Your task to perform on an android device: View the shopping cart on ebay. Add "rayovac triple a" to the cart on ebay Image 0: 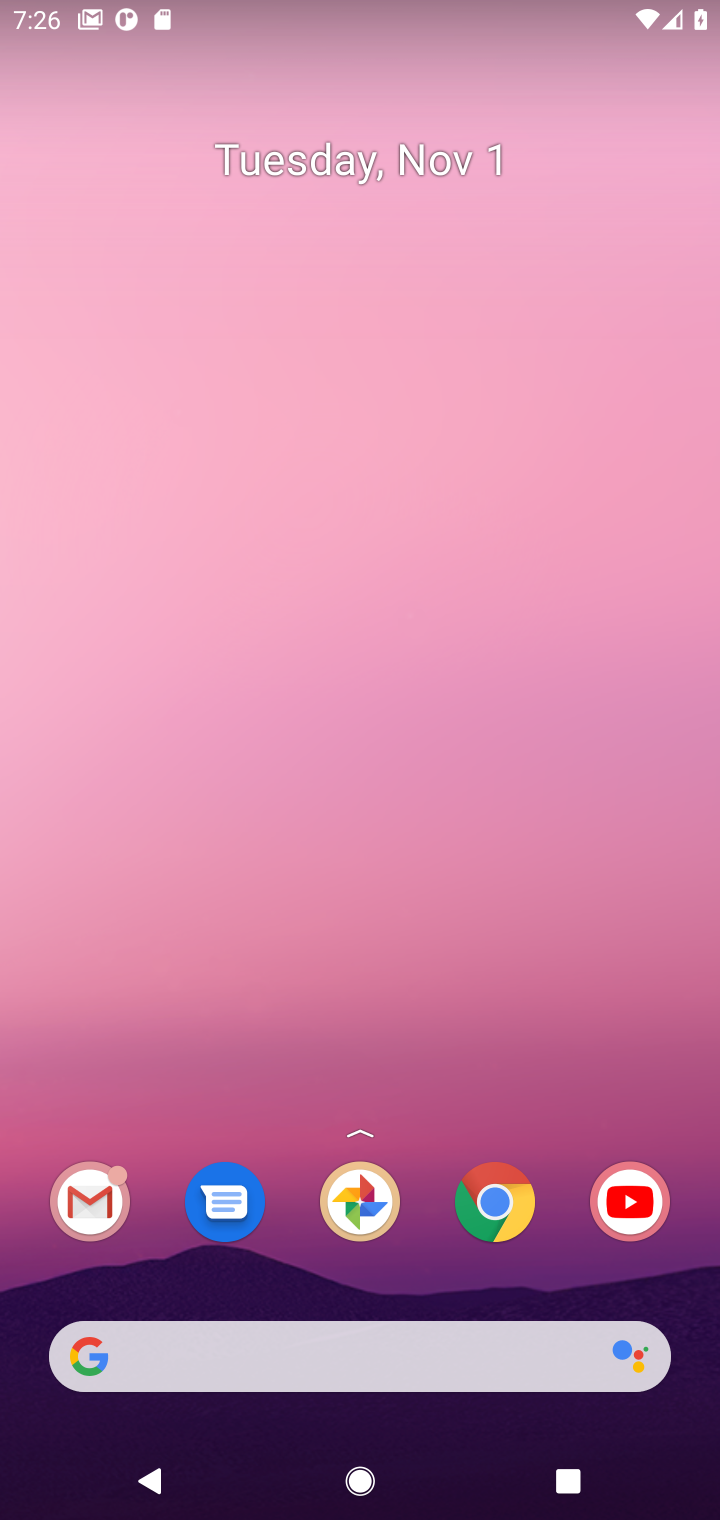
Step 0: drag from (446, 1436) to (466, 33)
Your task to perform on an android device: View the shopping cart on ebay. Add "rayovac triple a" to the cart on ebay Image 1: 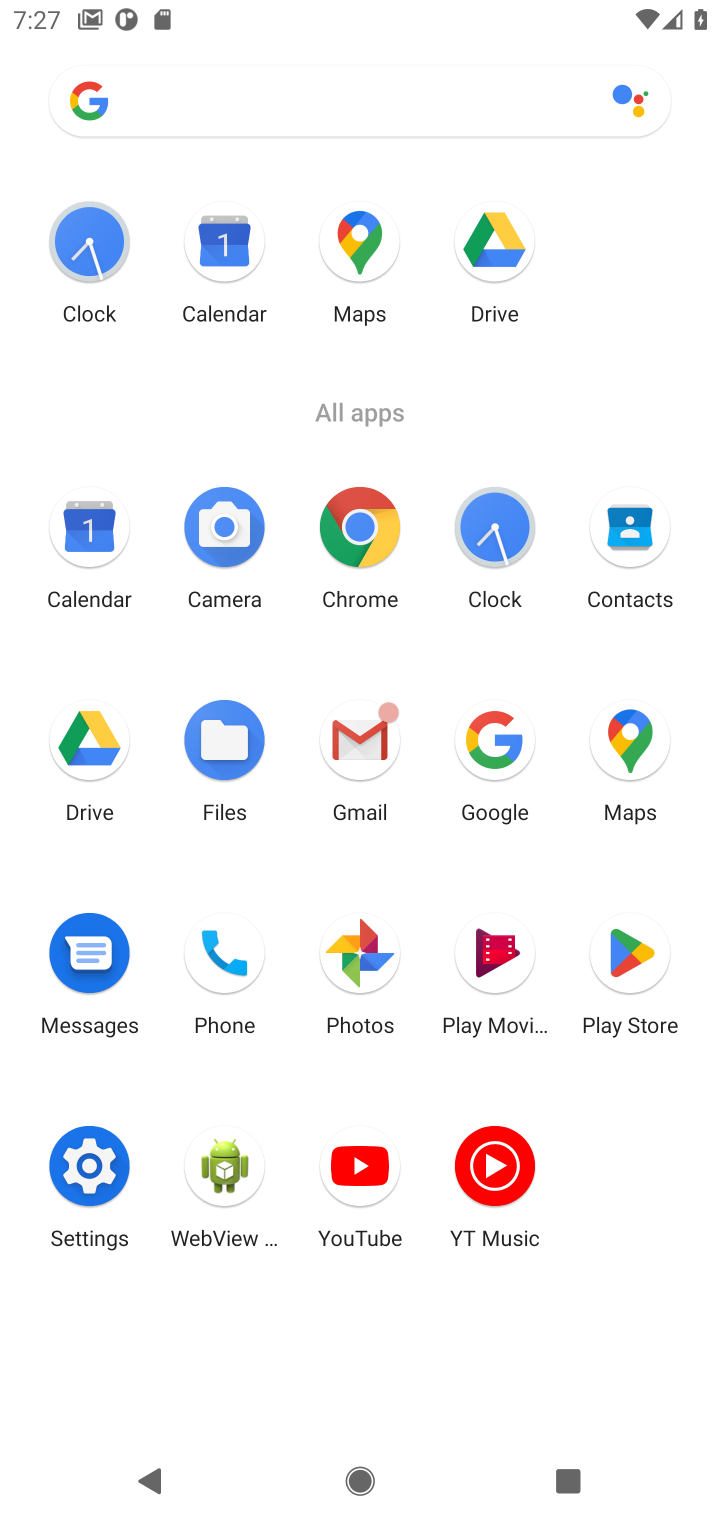
Step 1: drag from (288, 1351) to (389, 137)
Your task to perform on an android device: View the shopping cart on ebay. Add "rayovac triple a" to the cart on ebay Image 2: 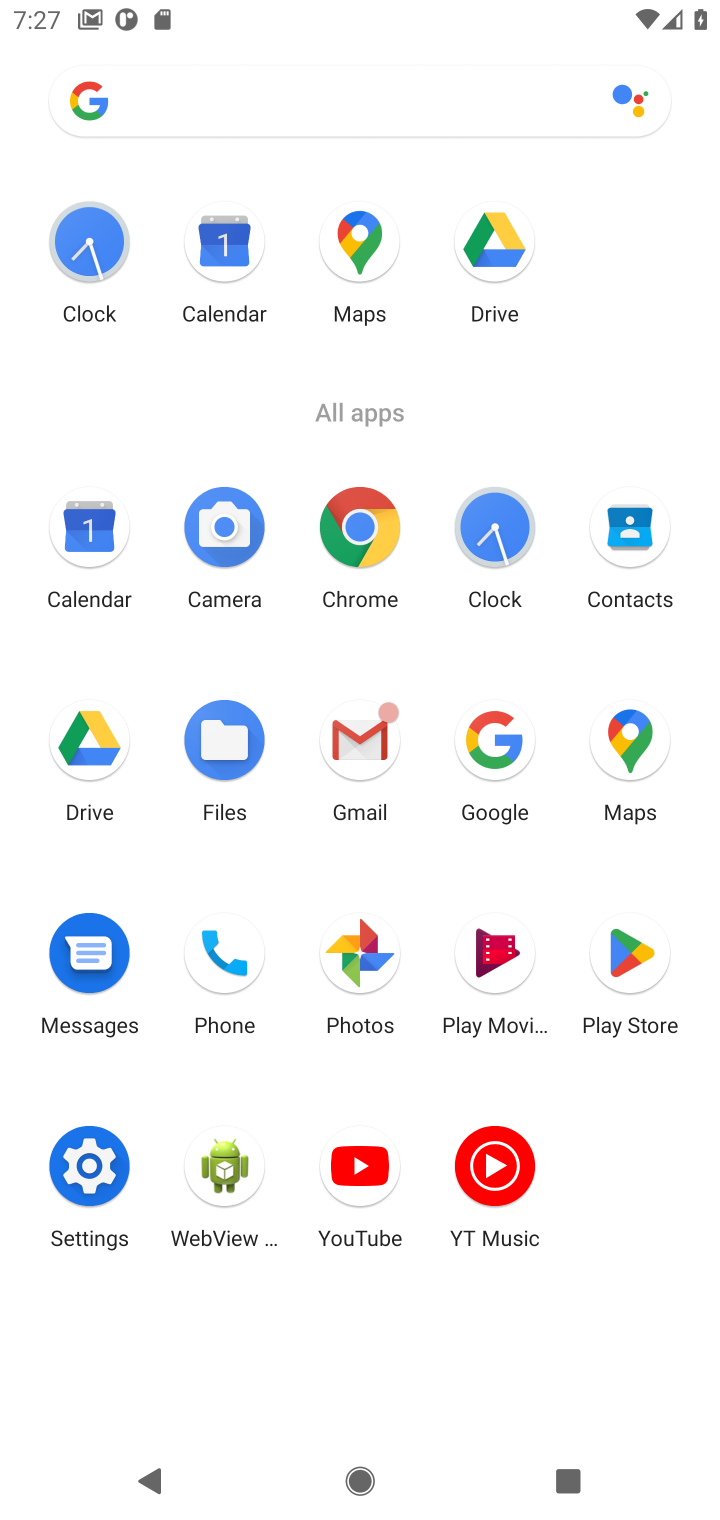
Step 2: click (359, 524)
Your task to perform on an android device: View the shopping cart on ebay. Add "rayovac triple a" to the cart on ebay Image 3: 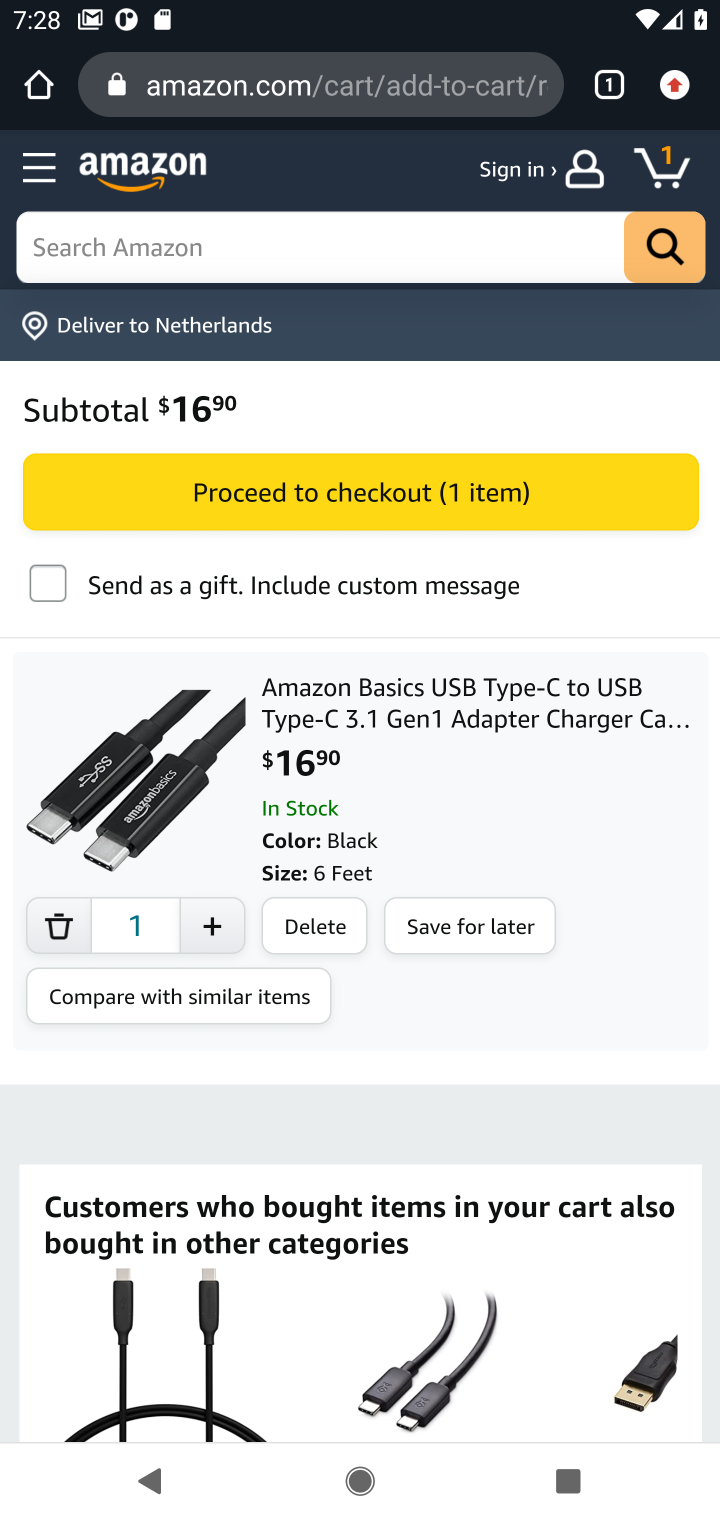
Step 3: click (320, 77)
Your task to perform on an android device: View the shopping cart on ebay. Add "rayovac triple a" to the cart on ebay Image 4: 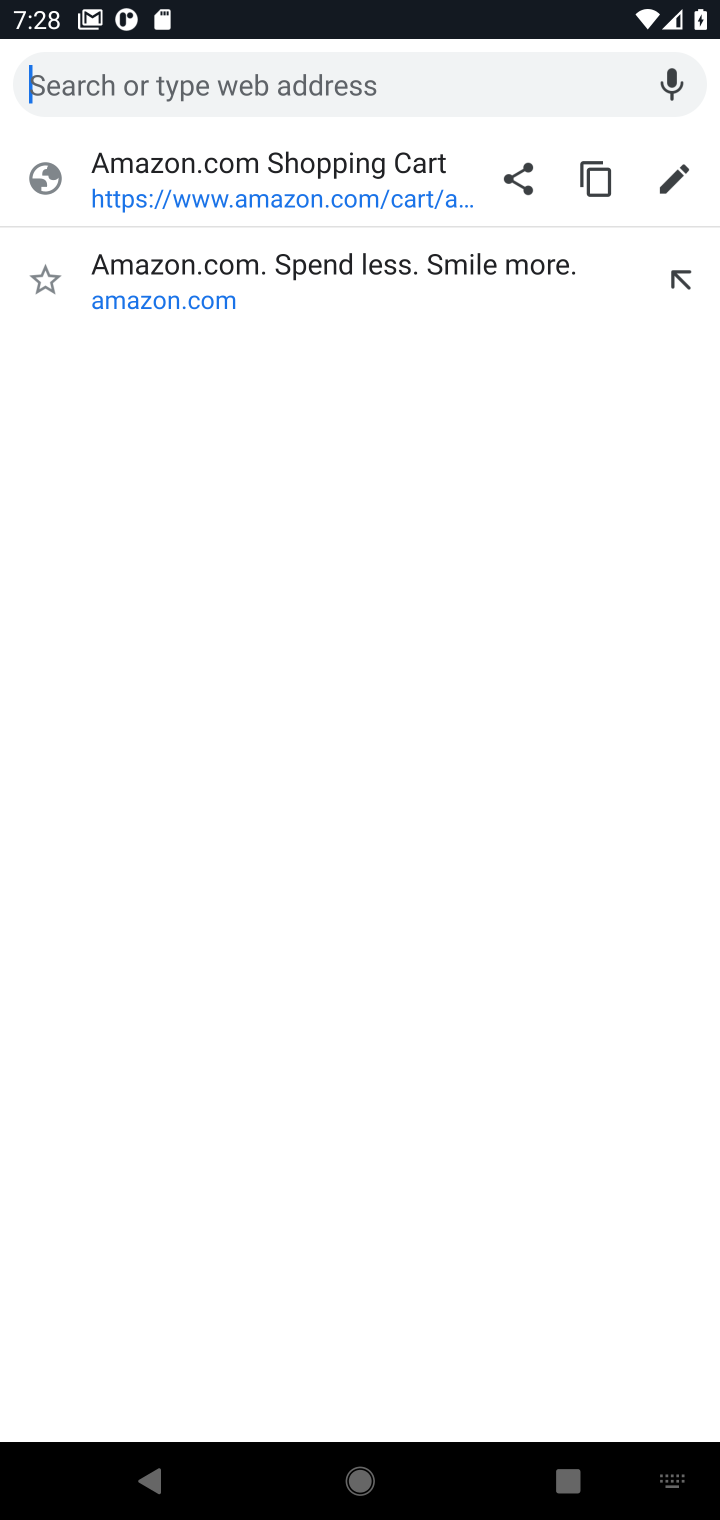
Step 4: type "ebay"
Your task to perform on an android device: View the shopping cart on ebay. Add "rayovac triple a" to the cart on ebay Image 5: 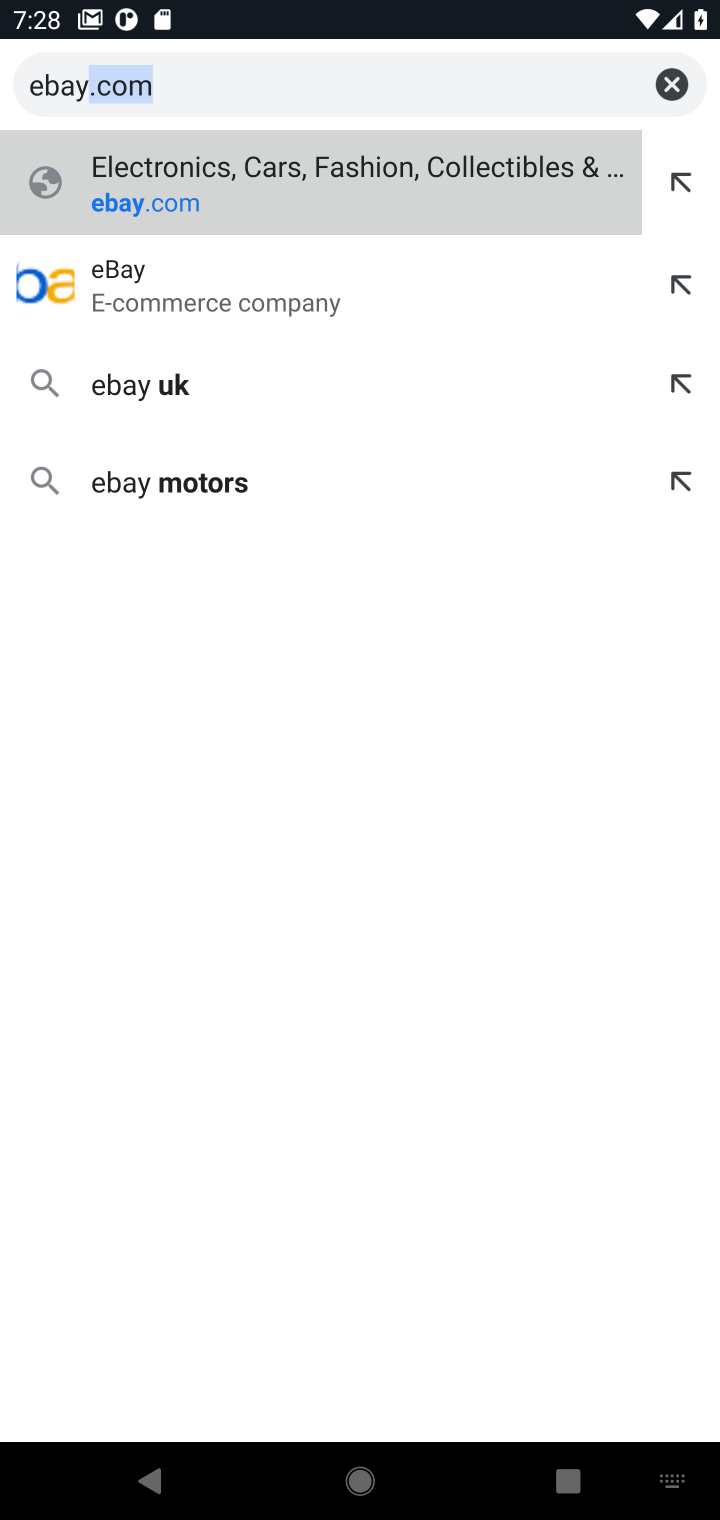
Step 5: click (127, 202)
Your task to perform on an android device: View the shopping cart on ebay. Add "rayovac triple a" to the cart on ebay Image 6: 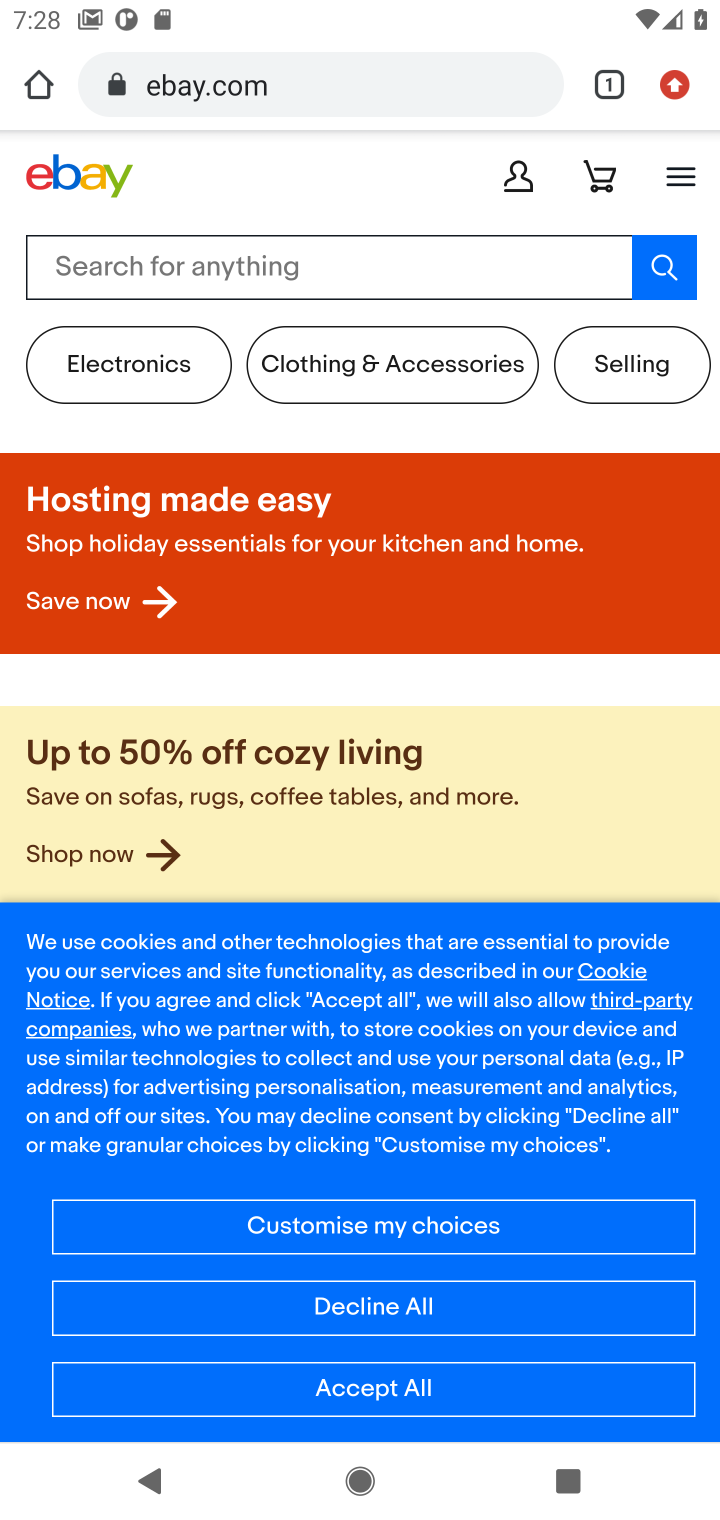
Step 6: click (275, 258)
Your task to perform on an android device: View the shopping cart on ebay. Add "rayovac triple a" to the cart on ebay Image 7: 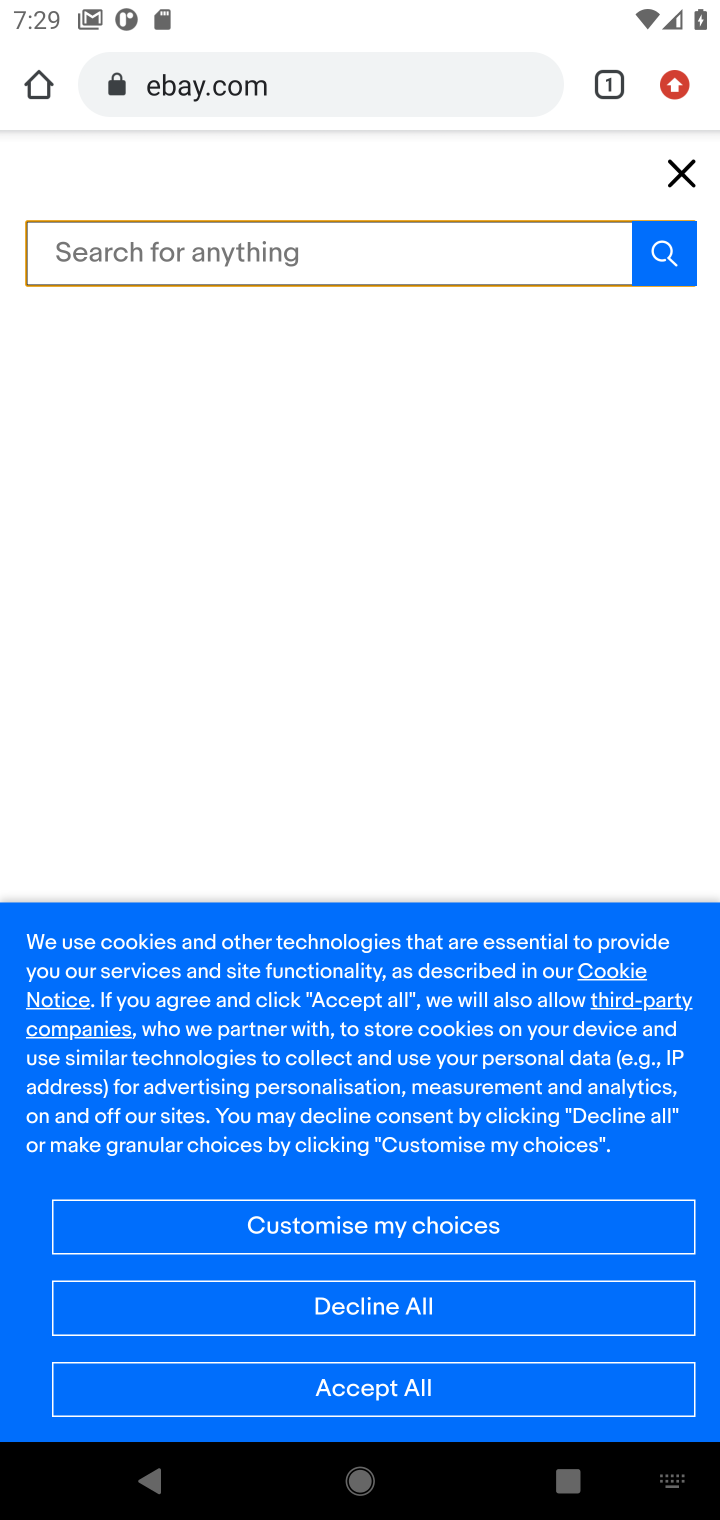
Step 7: type "rayovac triple a"
Your task to perform on an android device: View the shopping cart on ebay. Add "rayovac triple a" to the cart on ebay Image 8: 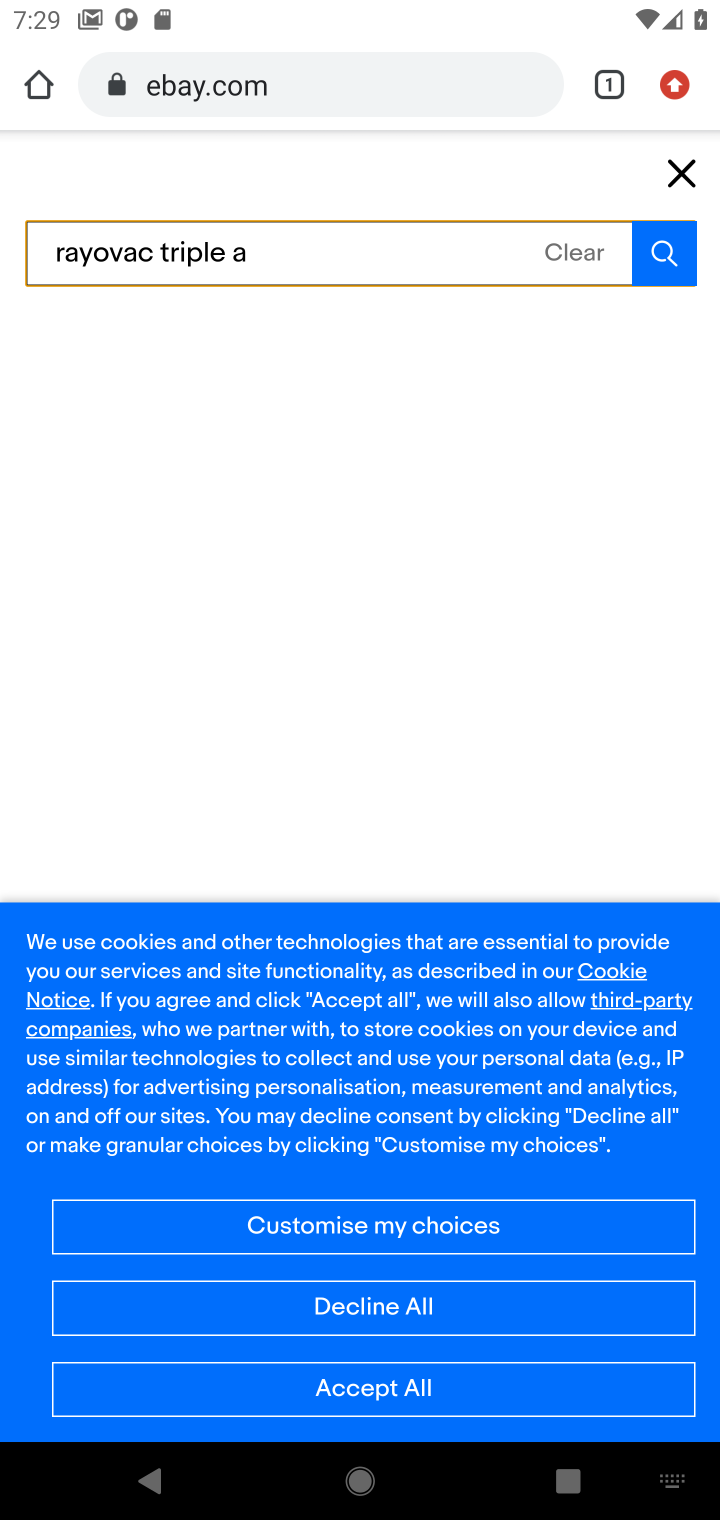
Step 8: click (655, 245)
Your task to perform on an android device: View the shopping cart on ebay. Add "rayovac triple a" to the cart on ebay Image 9: 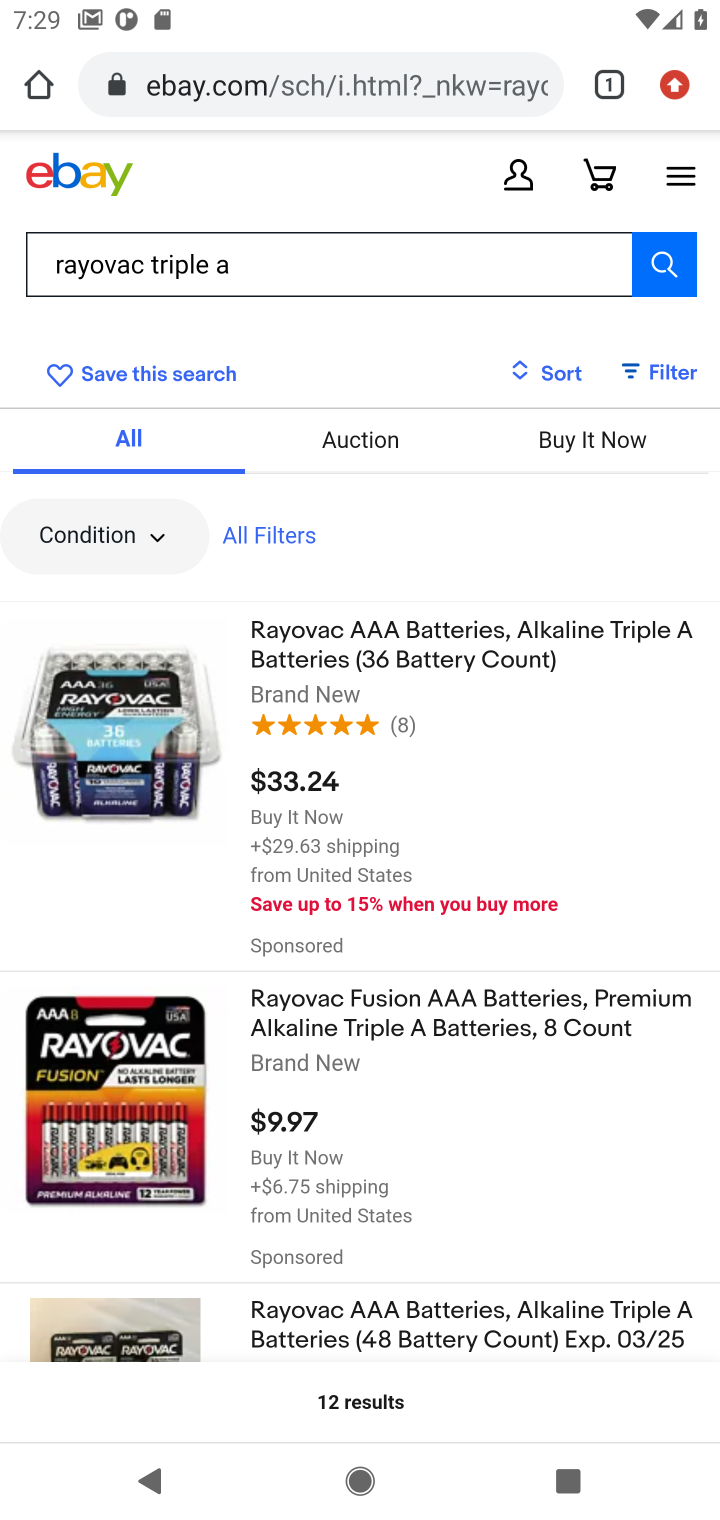
Step 9: click (152, 651)
Your task to perform on an android device: View the shopping cart on ebay. Add "rayovac triple a" to the cart on ebay Image 10: 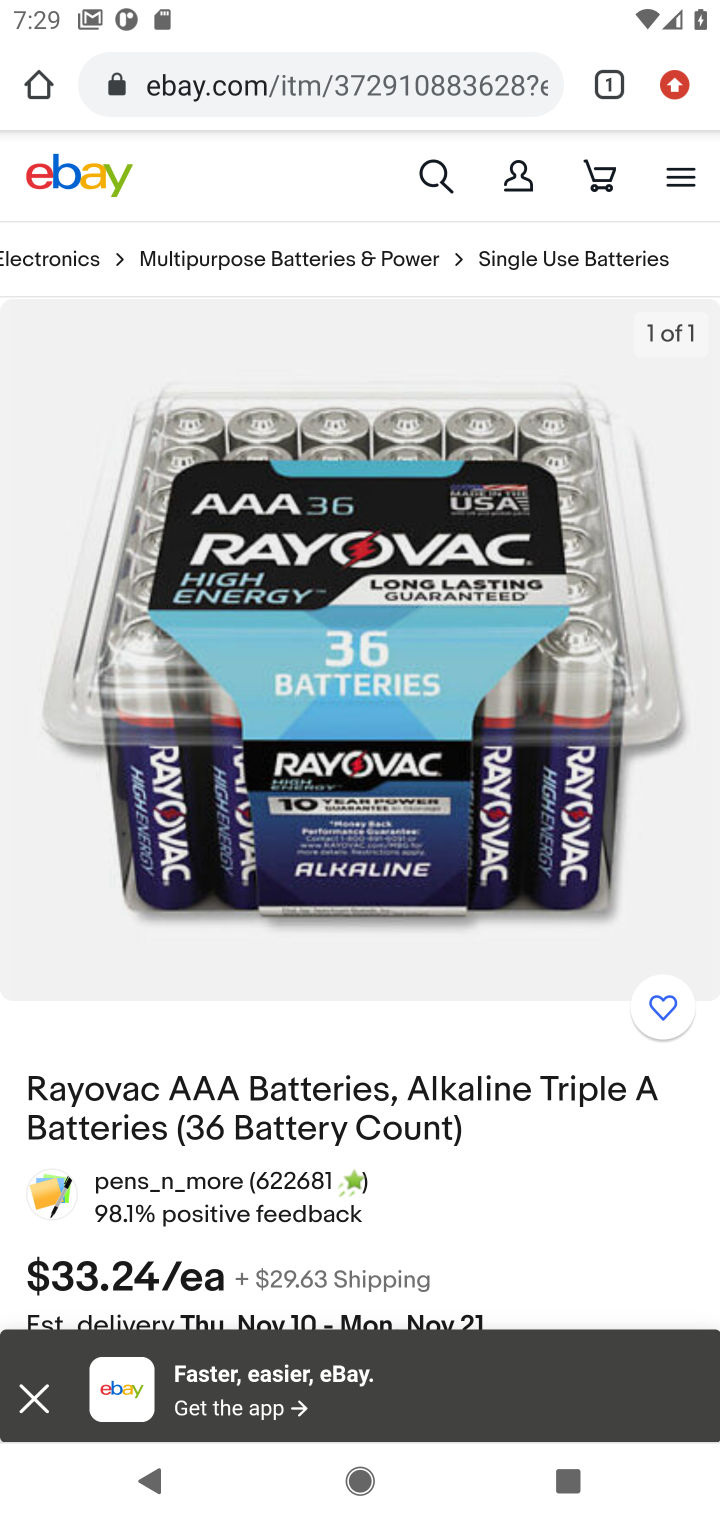
Step 10: drag from (578, 1157) to (359, 479)
Your task to perform on an android device: View the shopping cart on ebay. Add "rayovac triple a" to the cart on ebay Image 11: 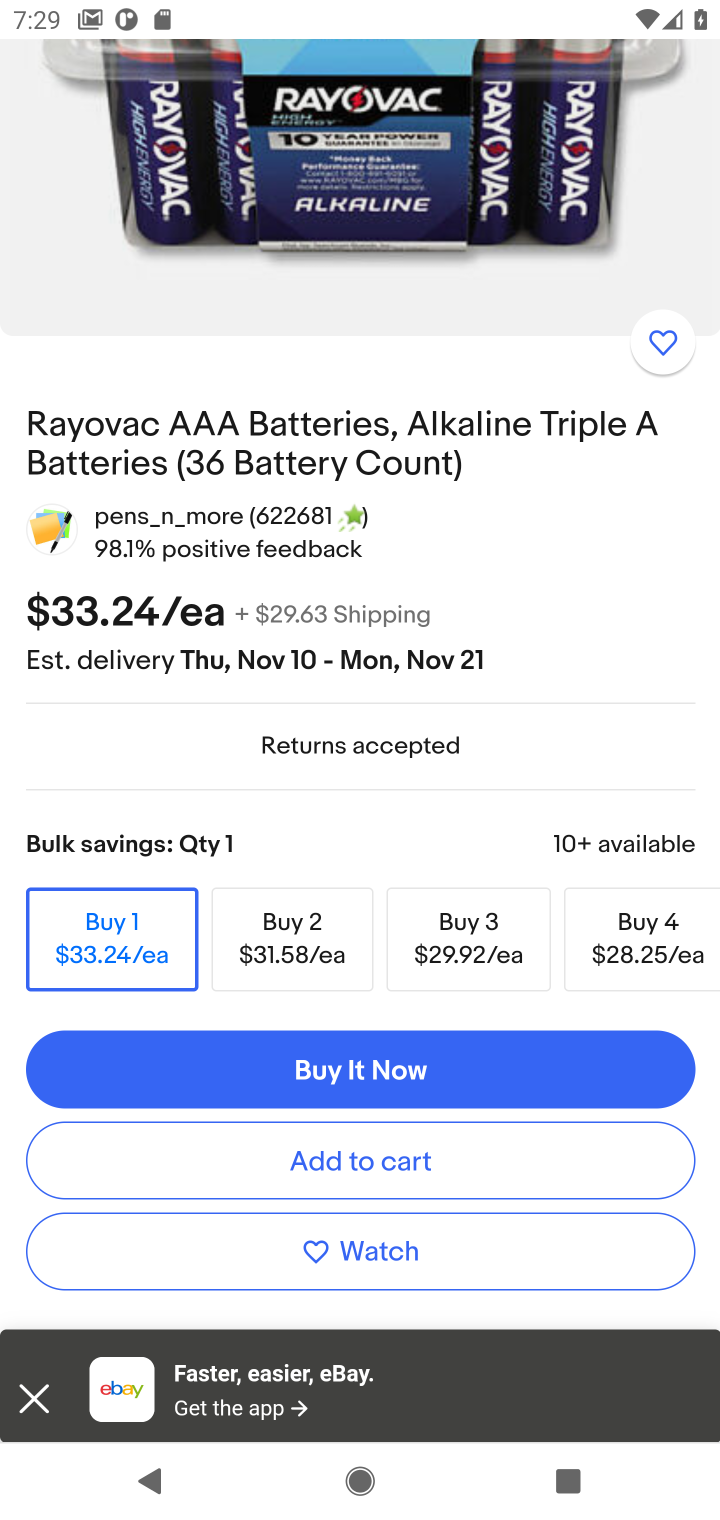
Step 11: click (378, 1150)
Your task to perform on an android device: View the shopping cart on ebay. Add "rayovac triple a" to the cart on ebay Image 12: 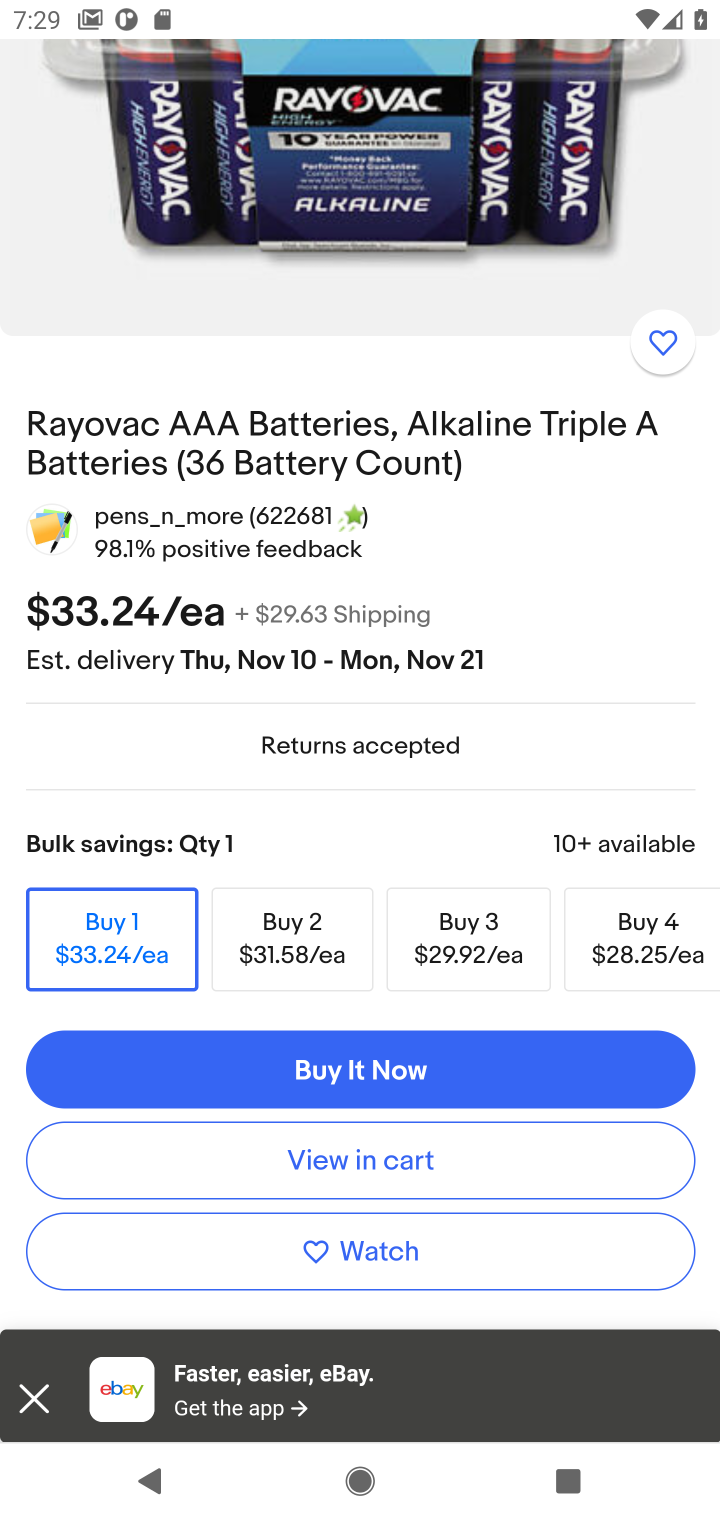
Step 12: task complete